Your task to perform on an android device: Go to Google Image 0: 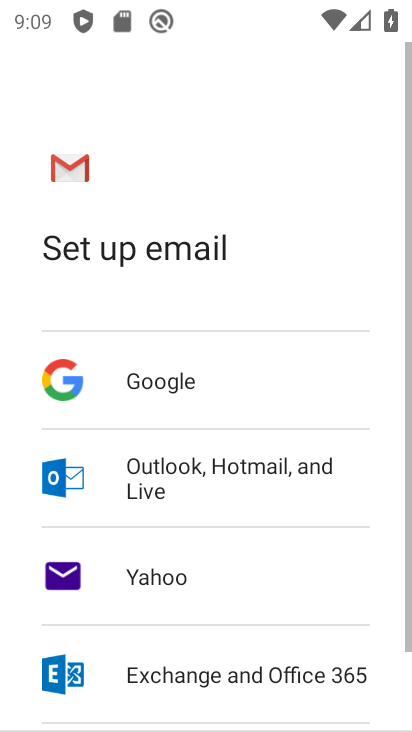
Step 0: press home button
Your task to perform on an android device: Go to Google Image 1: 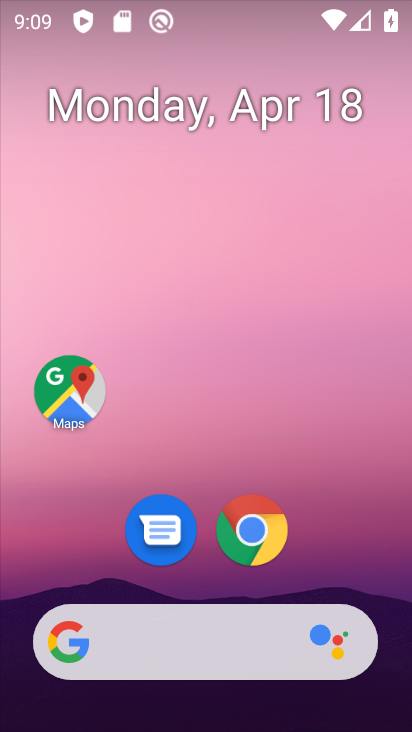
Step 1: drag from (367, 565) to (338, 14)
Your task to perform on an android device: Go to Google Image 2: 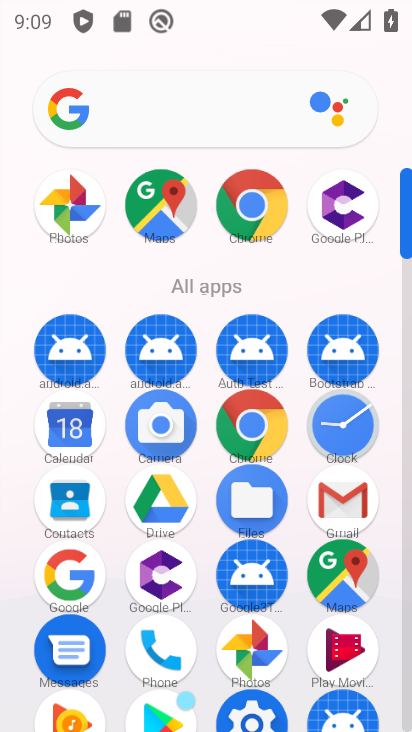
Step 2: click (69, 573)
Your task to perform on an android device: Go to Google Image 3: 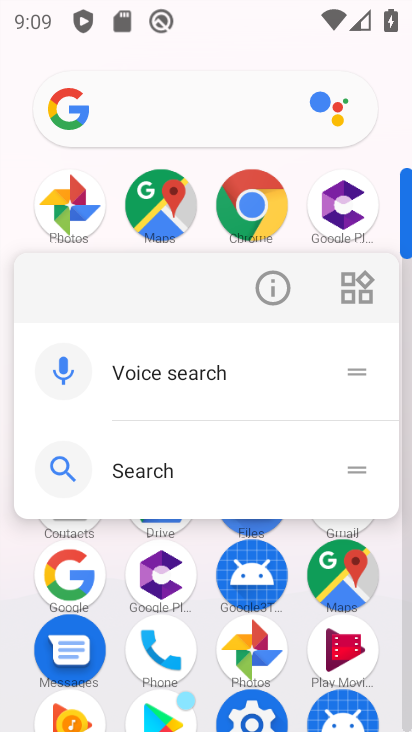
Step 3: click (71, 580)
Your task to perform on an android device: Go to Google Image 4: 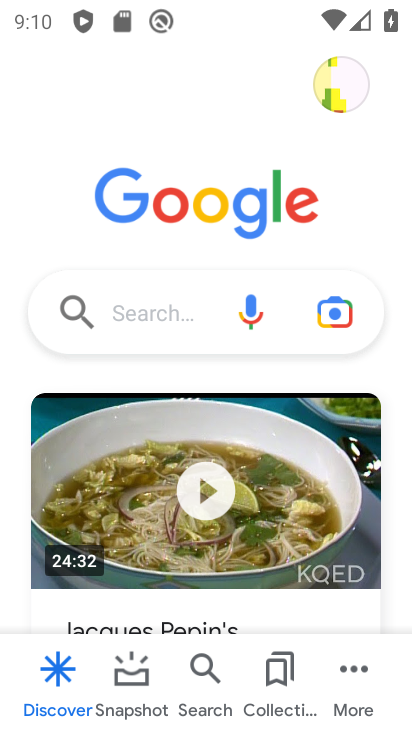
Step 4: task complete